Your task to perform on an android device: clear history in the chrome app Image 0: 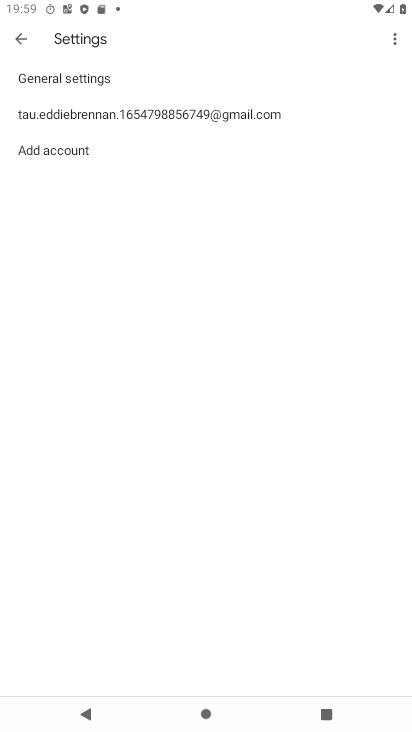
Step 0: press home button
Your task to perform on an android device: clear history in the chrome app Image 1: 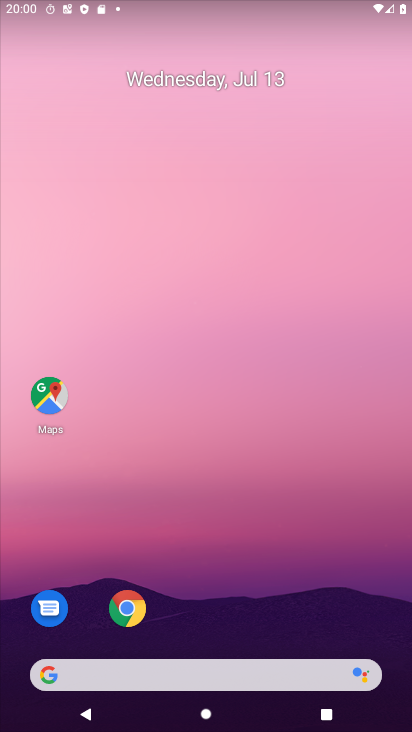
Step 1: click (121, 611)
Your task to perform on an android device: clear history in the chrome app Image 2: 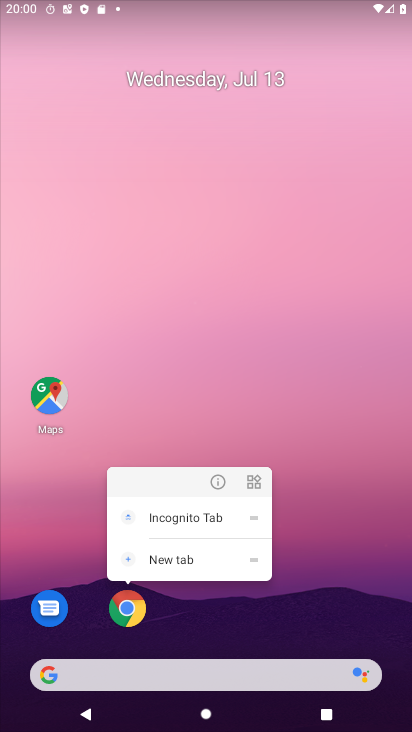
Step 2: click (122, 615)
Your task to perform on an android device: clear history in the chrome app Image 3: 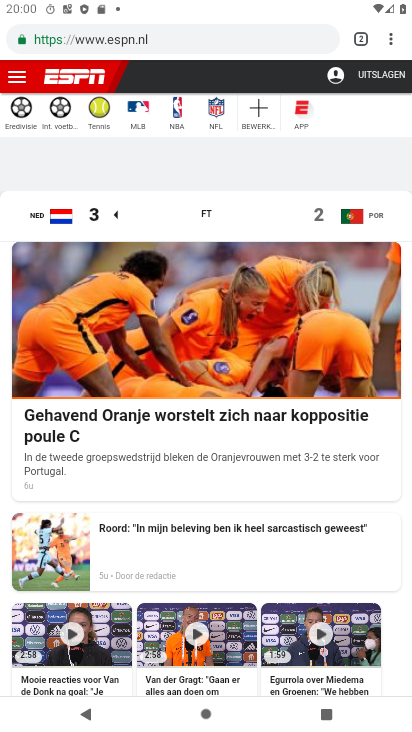
Step 3: drag from (391, 31) to (253, 267)
Your task to perform on an android device: clear history in the chrome app Image 4: 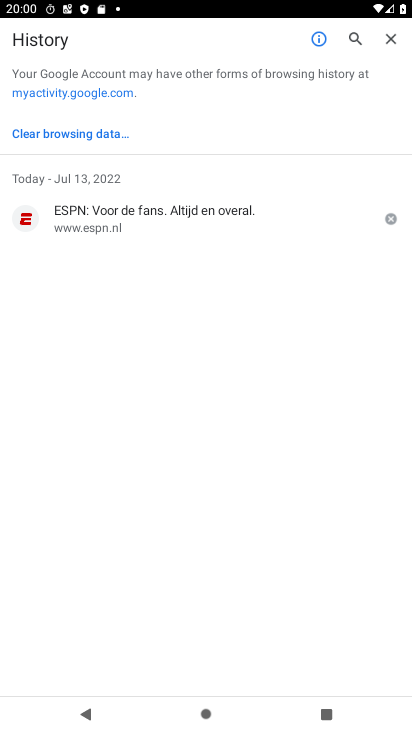
Step 4: click (66, 126)
Your task to perform on an android device: clear history in the chrome app Image 5: 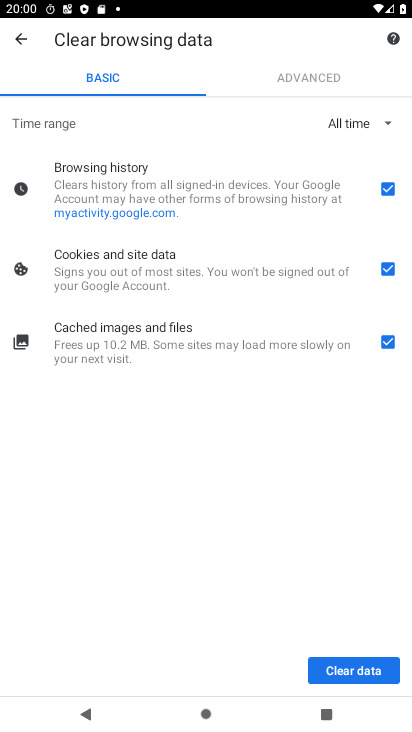
Step 5: click (348, 673)
Your task to perform on an android device: clear history in the chrome app Image 6: 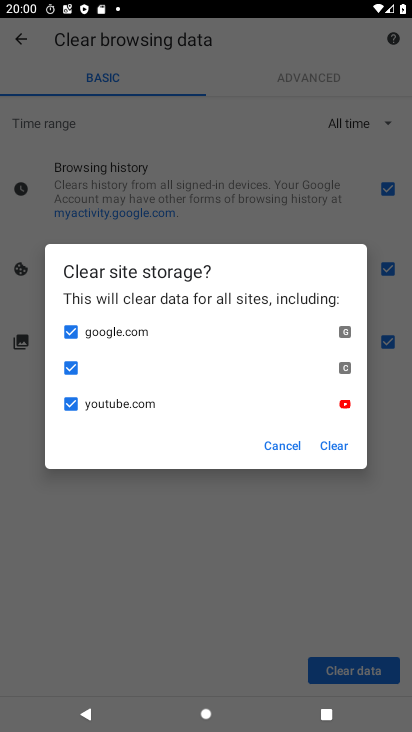
Step 6: click (323, 438)
Your task to perform on an android device: clear history in the chrome app Image 7: 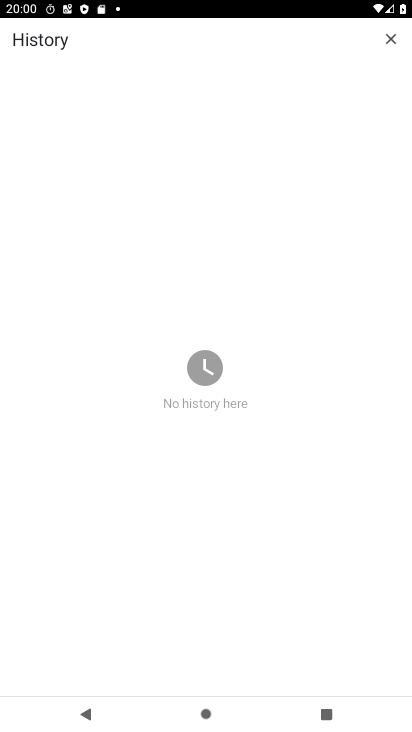
Step 7: task complete